Your task to perform on an android device: When is my next meeting? Image 0: 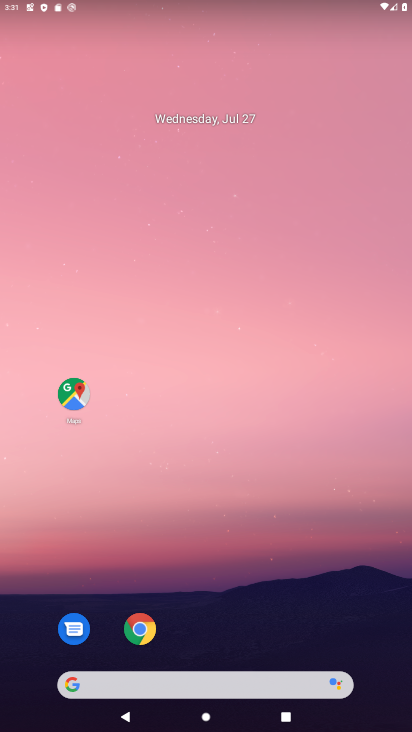
Step 0: drag from (275, 621) to (249, 167)
Your task to perform on an android device: When is my next meeting? Image 1: 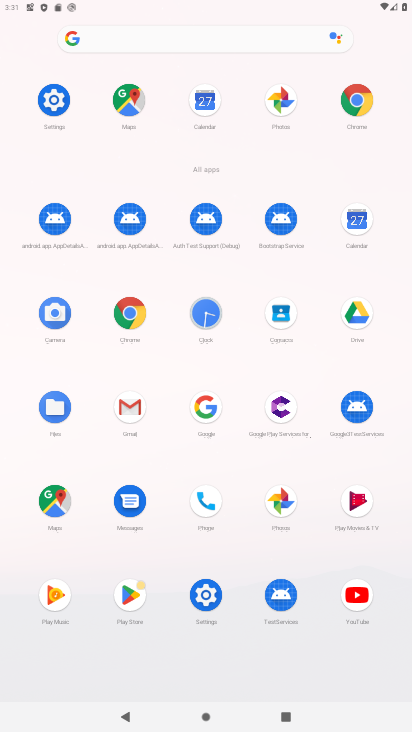
Step 1: click (362, 224)
Your task to perform on an android device: When is my next meeting? Image 2: 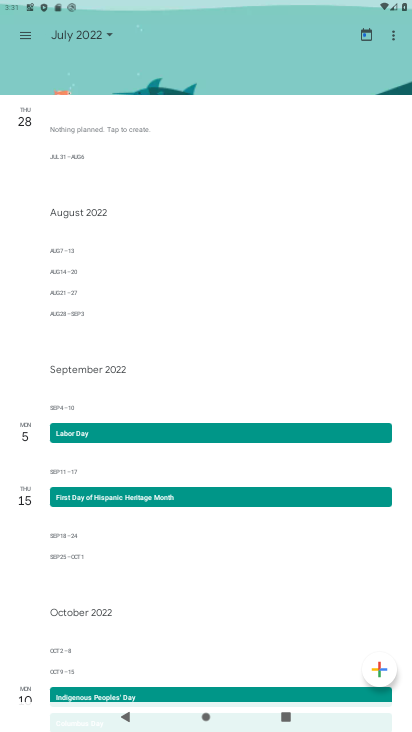
Step 2: click (12, 43)
Your task to perform on an android device: When is my next meeting? Image 3: 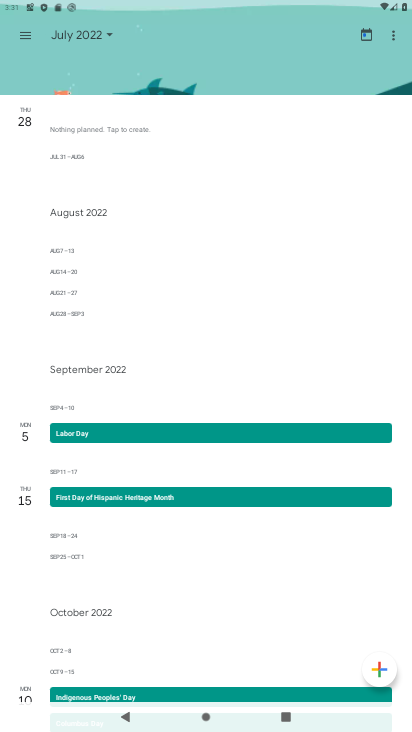
Step 3: click (25, 36)
Your task to perform on an android device: When is my next meeting? Image 4: 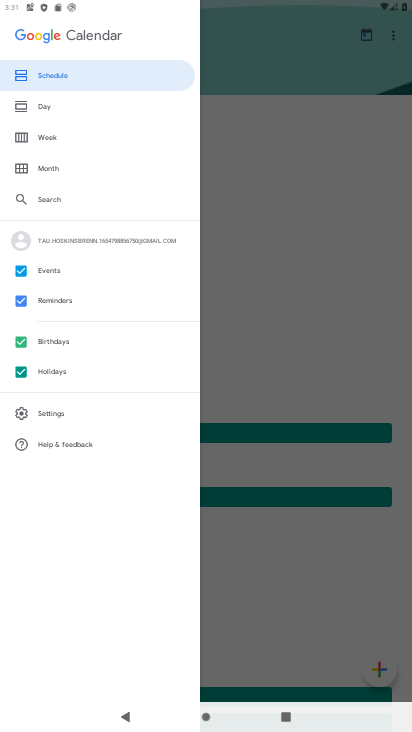
Step 4: click (25, 36)
Your task to perform on an android device: When is my next meeting? Image 5: 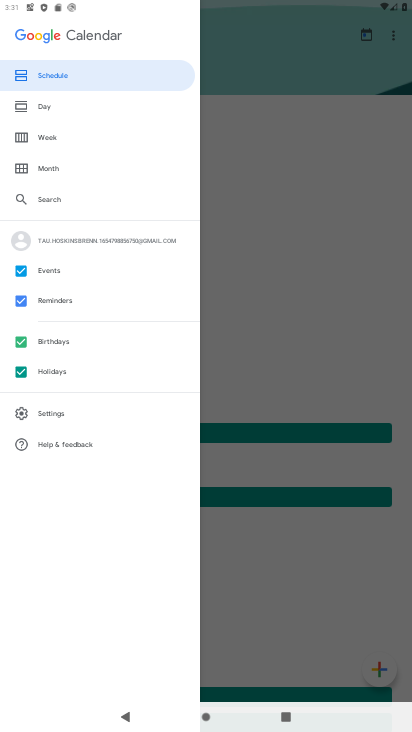
Step 5: click (19, 39)
Your task to perform on an android device: When is my next meeting? Image 6: 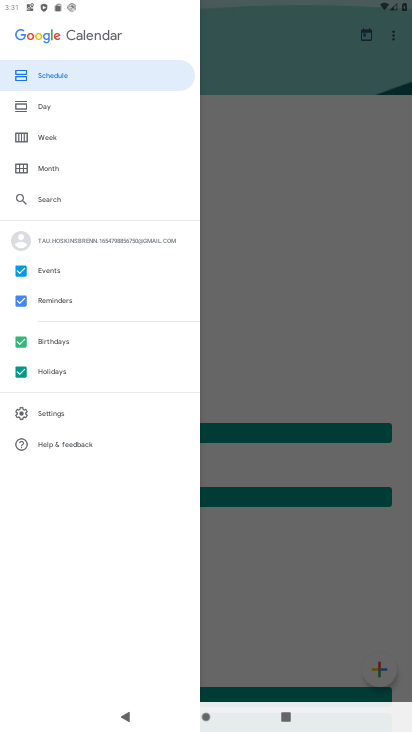
Step 6: click (55, 142)
Your task to perform on an android device: When is my next meeting? Image 7: 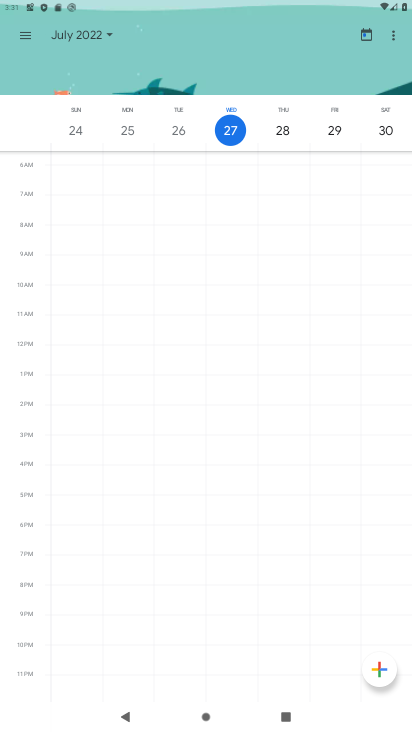
Step 7: task complete